Your task to perform on an android device: Open Google Maps Image 0: 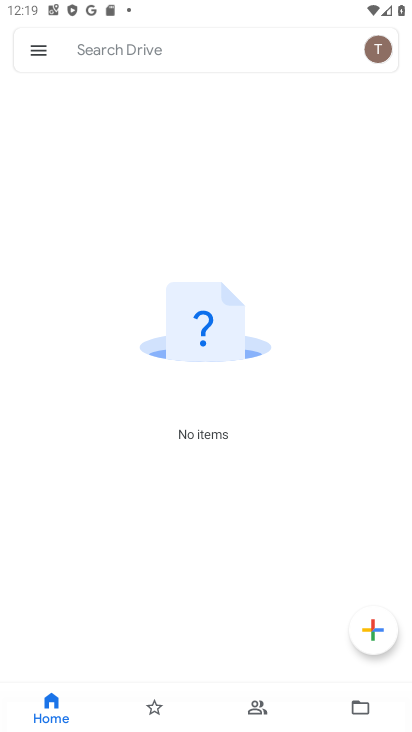
Step 0: press home button
Your task to perform on an android device: Open Google Maps Image 1: 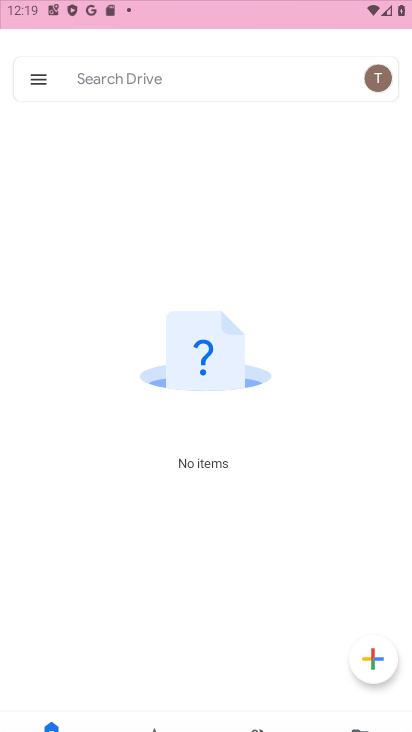
Step 1: drag from (214, 616) to (194, 237)
Your task to perform on an android device: Open Google Maps Image 2: 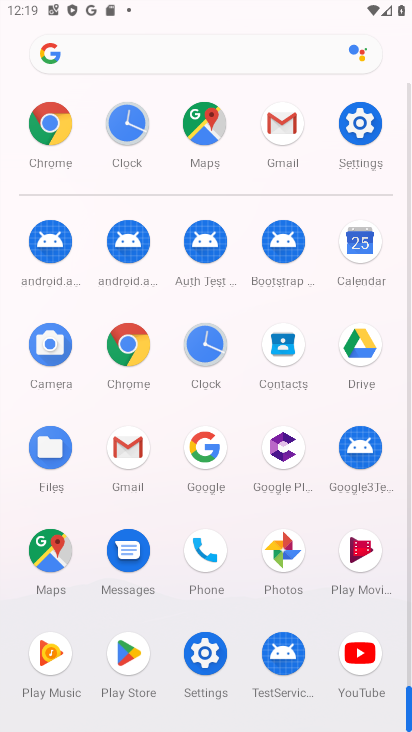
Step 2: click (69, 565)
Your task to perform on an android device: Open Google Maps Image 3: 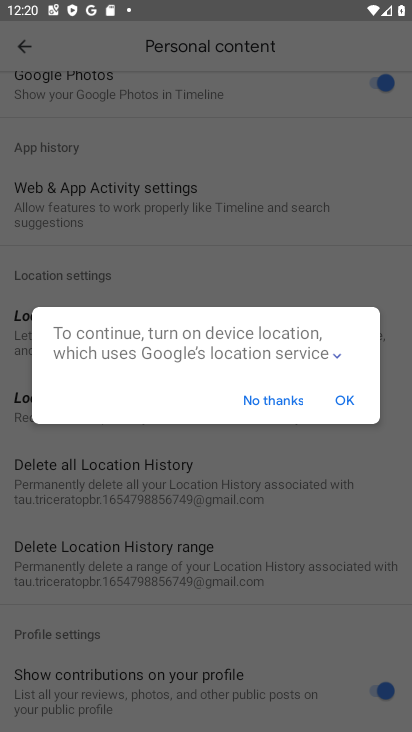
Step 3: click (260, 413)
Your task to perform on an android device: Open Google Maps Image 4: 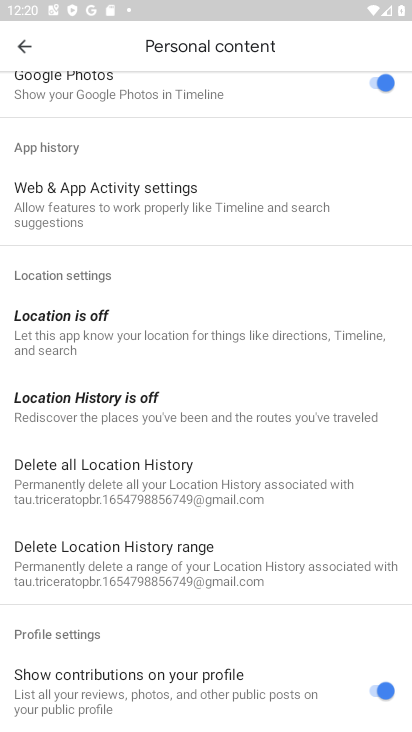
Step 4: click (34, 51)
Your task to perform on an android device: Open Google Maps Image 5: 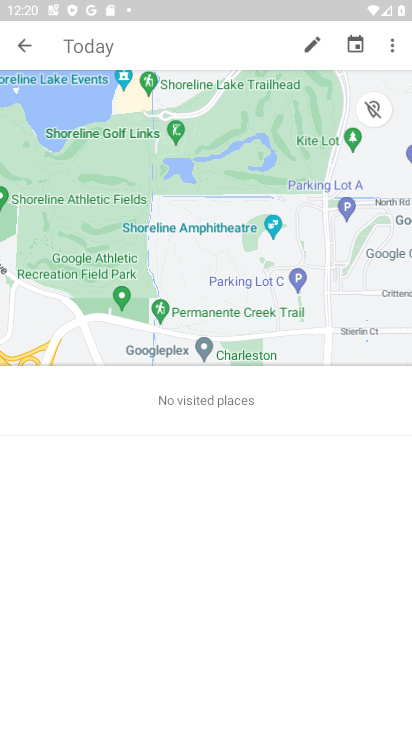
Step 5: click (34, 51)
Your task to perform on an android device: Open Google Maps Image 6: 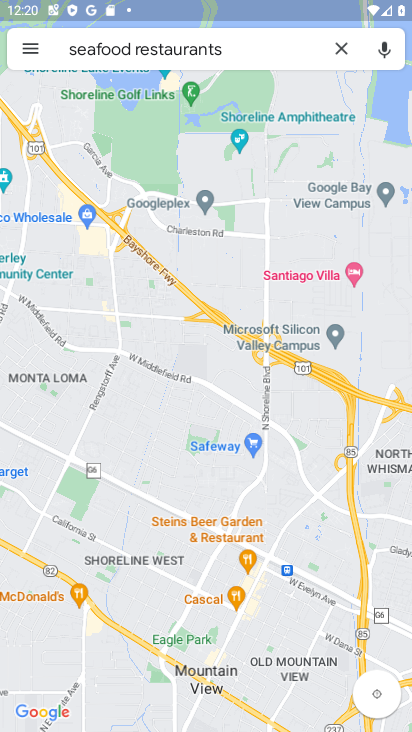
Step 6: task complete